Your task to perform on an android device: find which apps use the phone's location Image 0: 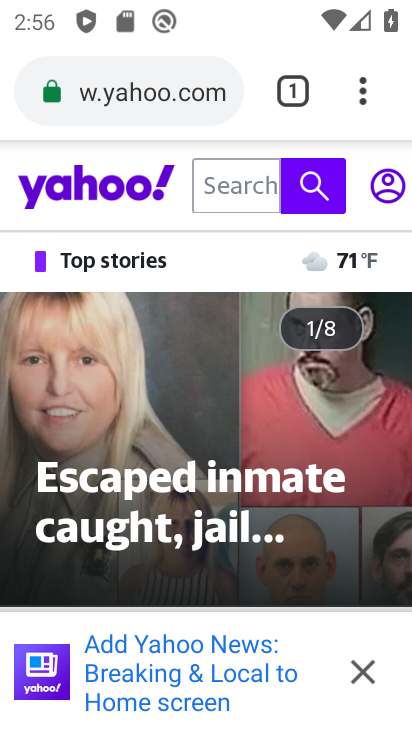
Step 0: press home button
Your task to perform on an android device: find which apps use the phone's location Image 1: 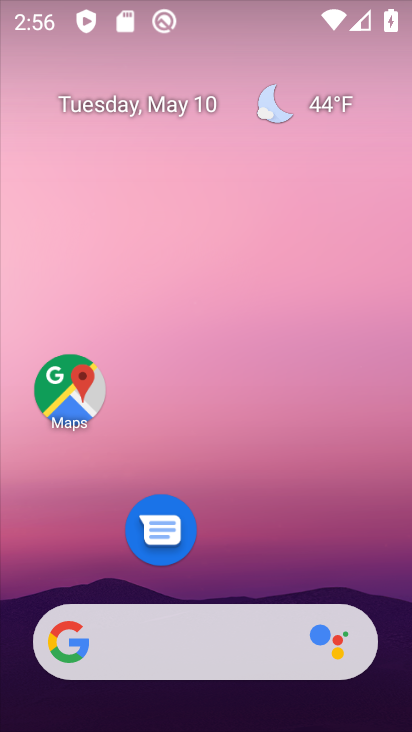
Step 1: drag from (244, 560) to (220, 61)
Your task to perform on an android device: find which apps use the phone's location Image 2: 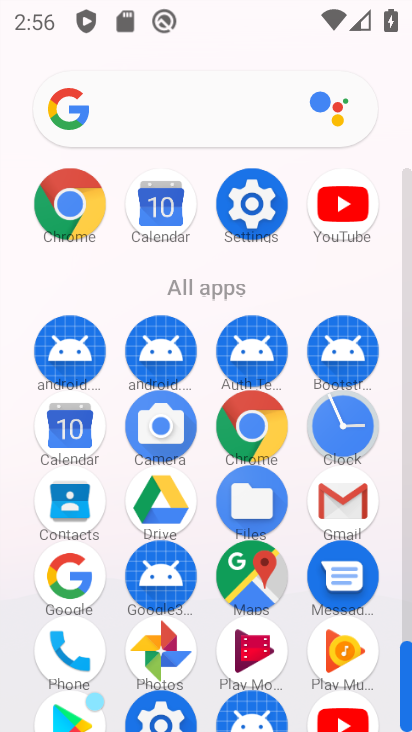
Step 2: click (246, 207)
Your task to perform on an android device: find which apps use the phone's location Image 3: 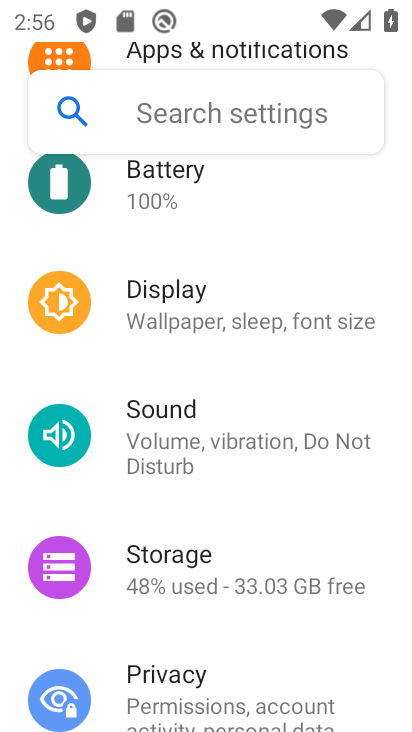
Step 3: drag from (220, 229) to (201, 2)
Your task to perform on an android device: find which apps use the phone's location Image 4: 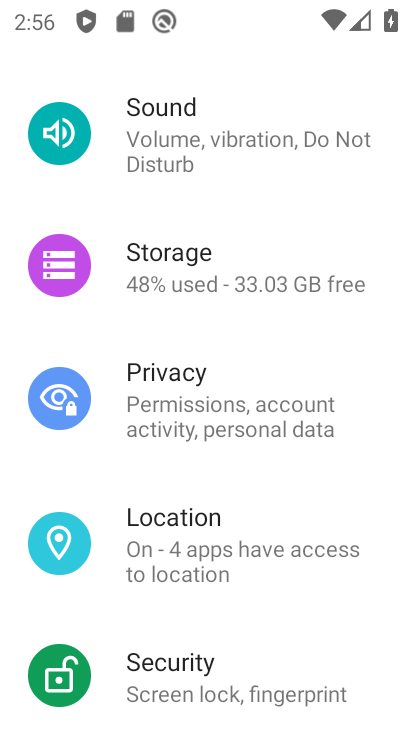
Step 4: click (175, 551)
Your task to perform on an android device: find which apps use the phone's location Image 5: 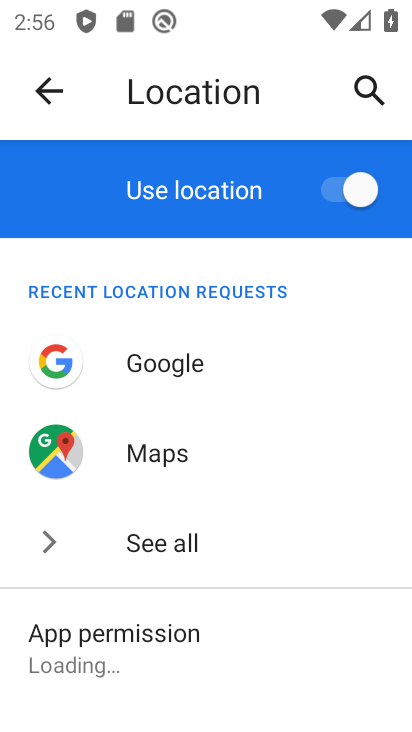
Step 5: drag from (225, 601) to (175, 292)
Your task to perform on an android device: find which apps use the phone's location Image 6: 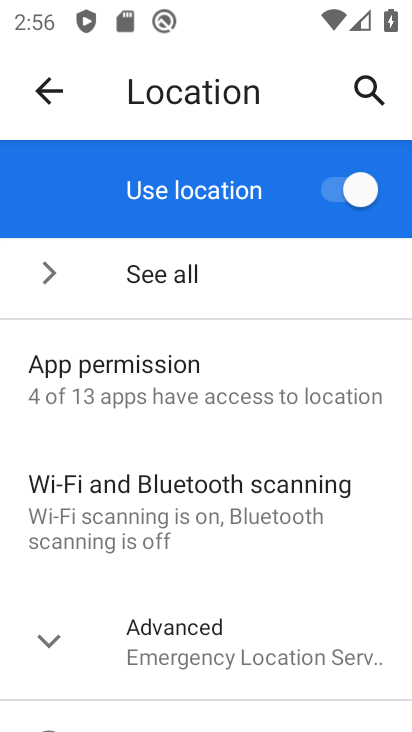
Step 6: click (100, 381)
Your task to perform on an android device: find which apps use the phone's location Image 7: 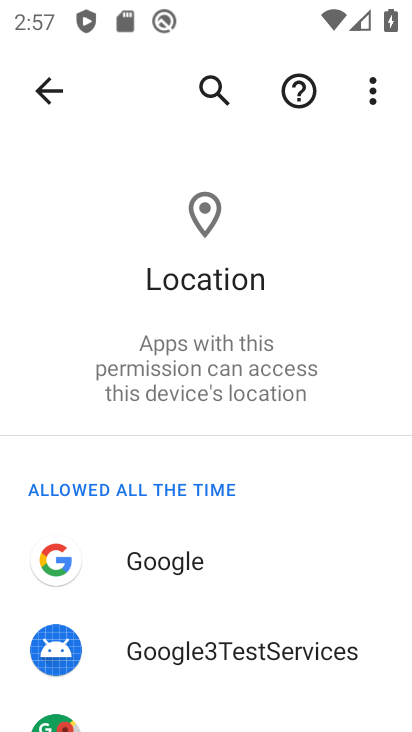
Step 7: task complete